Your task to perform on an android device: manage bookmarks in the chrome app Image 0: 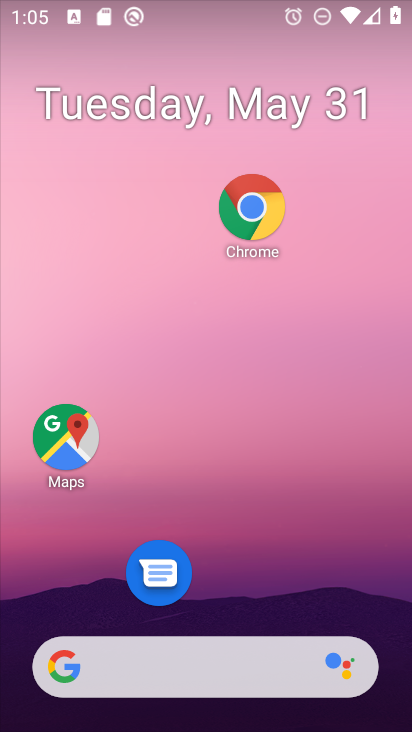
Step 0: drag from (219, 662) to (187, 275)
Your task to perform on an android device: manage bookmarks in the chrome app Image 1: 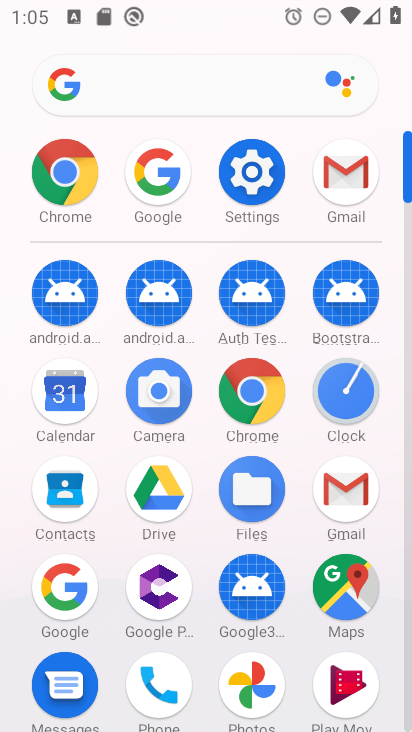
Step 1: click (249, 414)
Your task to perform on an android device: manage bookmarks in the chrome app Image 2: 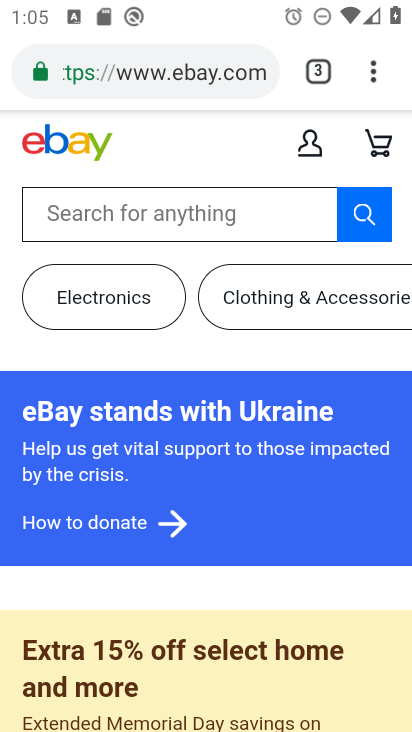
Step 2: click (368, 61)
Your task to perform on an android device: manage bookmarks in the chrome app Image 3: 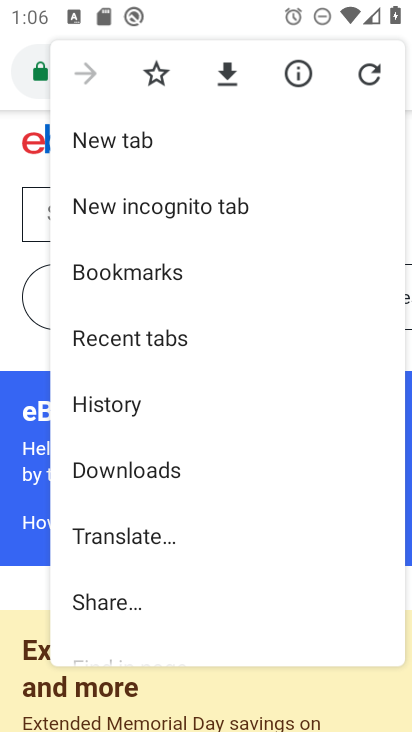
Step 3: click (143, 281)
Your task to perform on an android device: manage bookmarks in the chrome app Image 4: 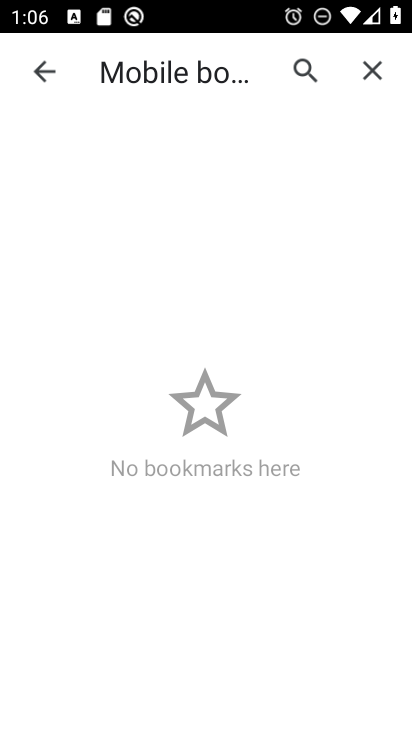
Step 4: task complete